Your task to perform on an android device: choose inbox layout in the gmail app Image 0: 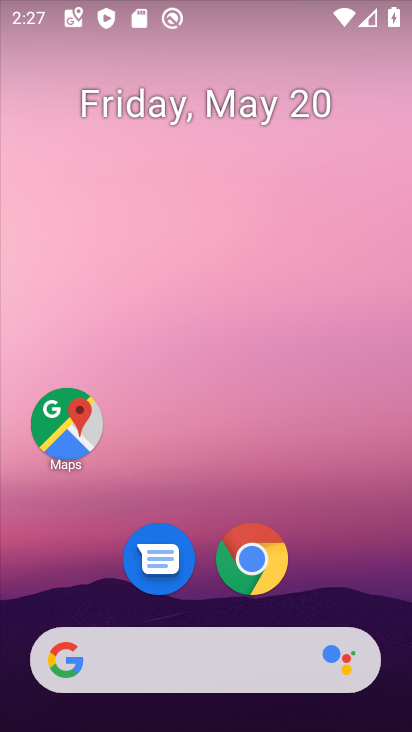
Step 0: drag from (220, 452) to (263, 1)
Your task to perform on an android device: choose inbox layout in the gmail app Image 1: 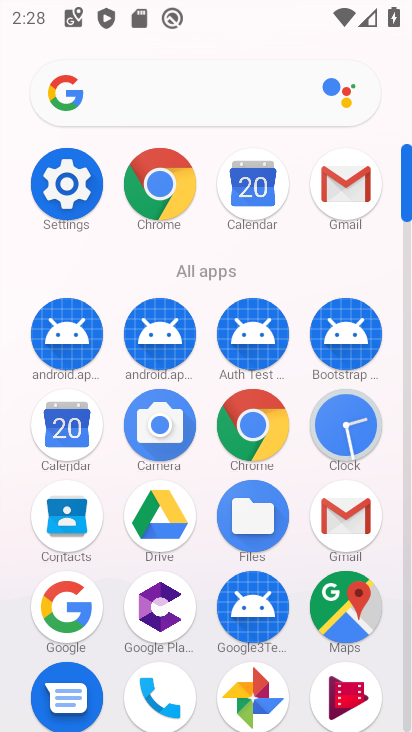
Step 1: click (349, 194)
Your task to perform on an android device: choose inbox layout in the gmail app Image 2: 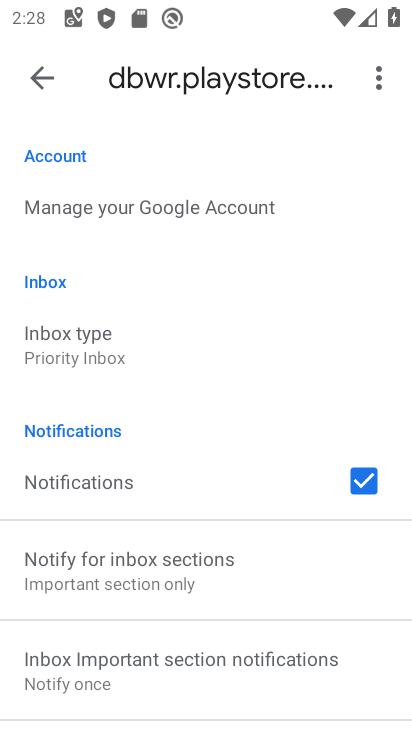
Step 2: click (349, 176)
Your task to perform on an android device: choose inbox layout in the gmail app Image 3: 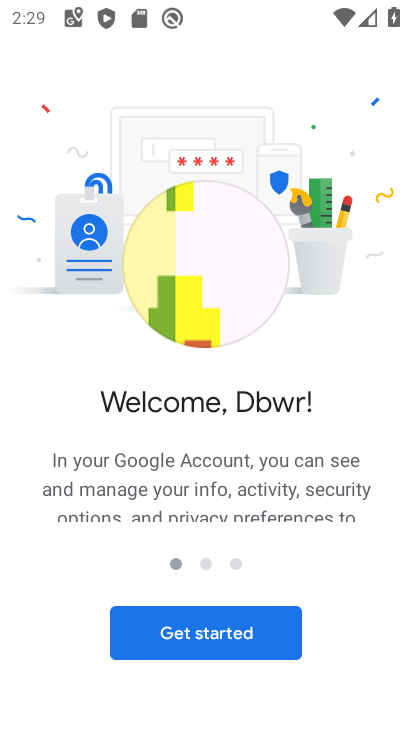
Step 3: press home button
Your task to perform on an android device: choose inbox layout in the gmail app Image 4: 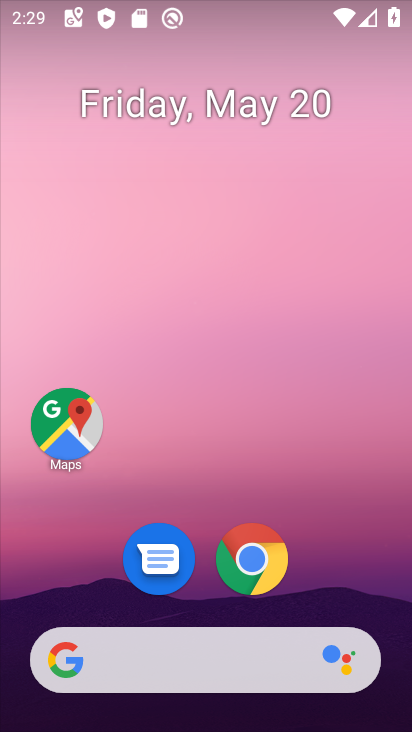
Step 4: drag from (265, 491) to (280, 26)
Your task to perform on an android device: choose inbox layout in the gmail app Image 5: 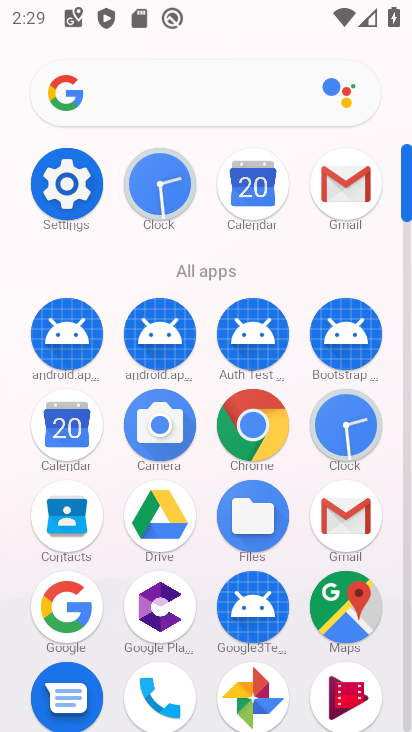
Step 5: click (348, 185)
Your task to perform on an android device: choose inbox layout in the gmail app Image 6: 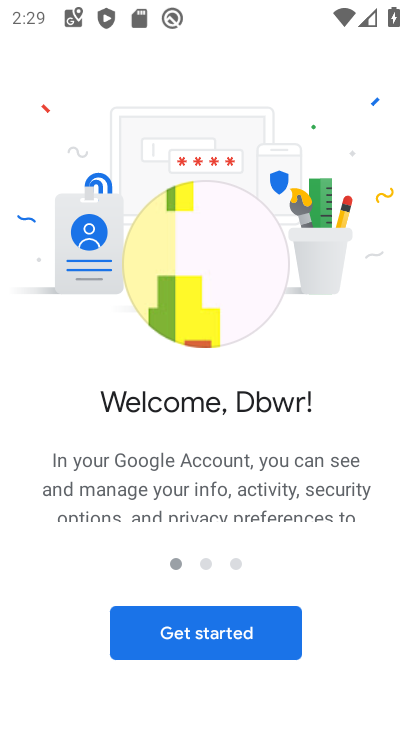
Step 6: click (242, 636)
Your task to perform on an android device: choose inbox layout in the gmail app Image 7: 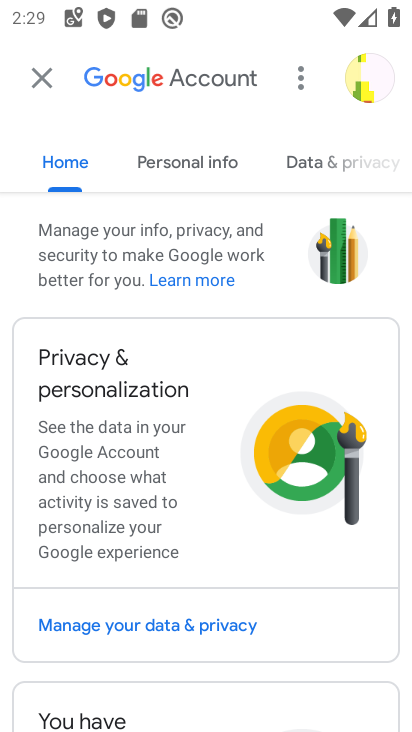
Step 7: drag from (233, 538) to (257, 187)
Your task to perform on an android device: choose inbox layout in the gmail app Image 8: 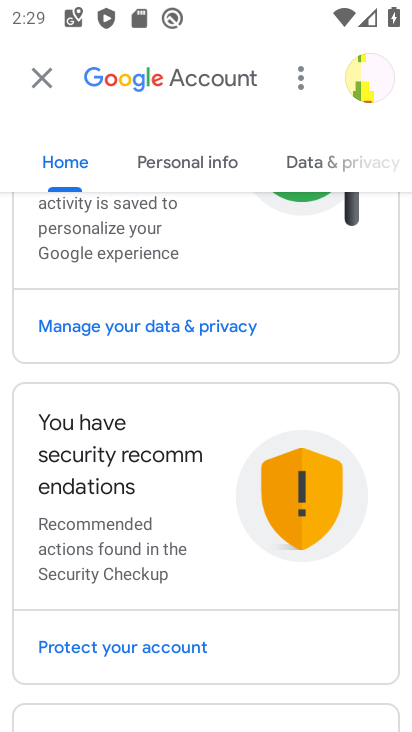
Step 8: click (42, 74)
Your task to perform on an android device: choose inbox layout in the gmail app Image 9: 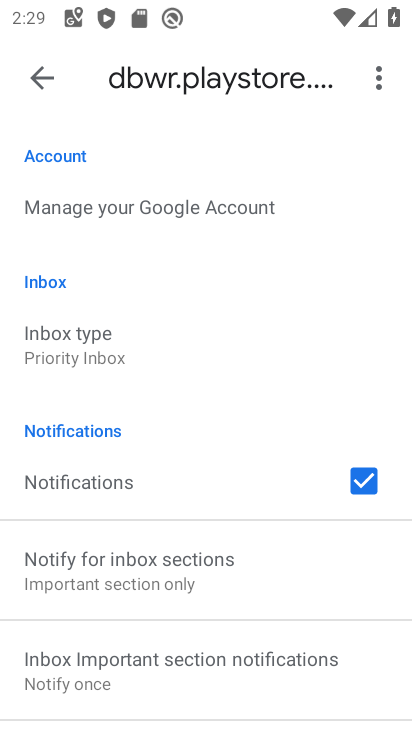
Step 9: click (106, 344)
Your task to perform on an android device: choose inbox layout in the gmail app Image 10: 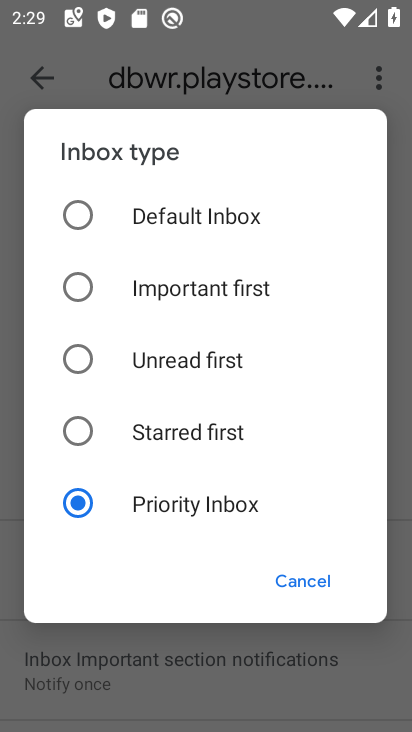
Step 10: click (152, 220)
Your task to perform on an android device: choose inbox layout in the gmail app Image 11: 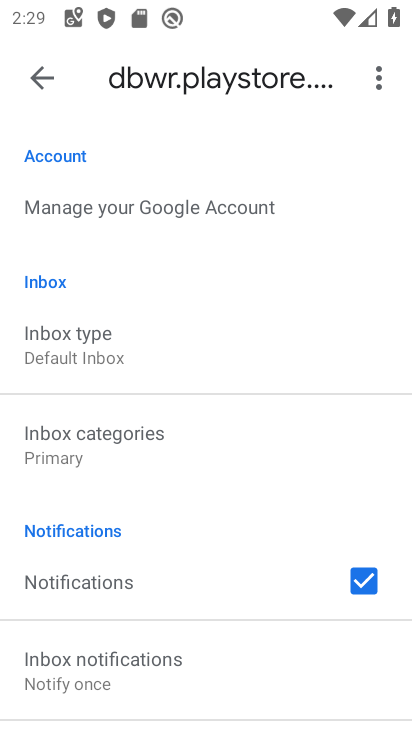
Step 11: task complete